Your task to perform on an android device: see creations saved in the google photos Image 0: 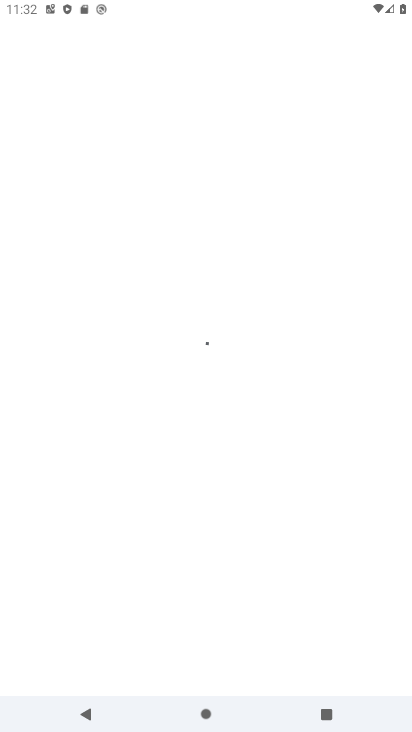
Step 0: press home button
Your task to perform on an android device: see creations saved in the google photos Image 1: 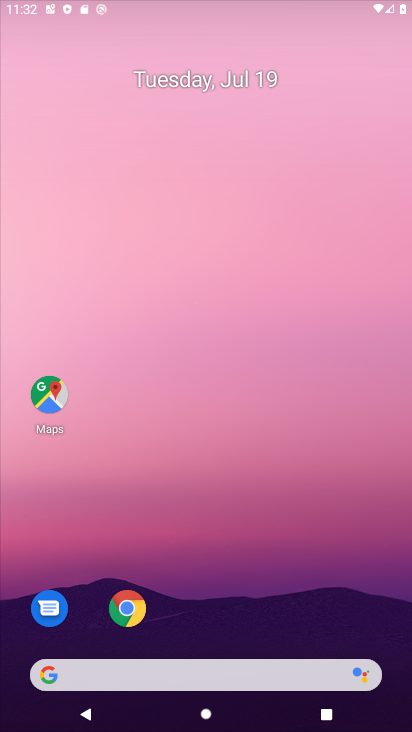
Step 1: drag from (222, 629) to (246, 61)
Your task to perform on an android device: see creations saved in the google photos Image 2: 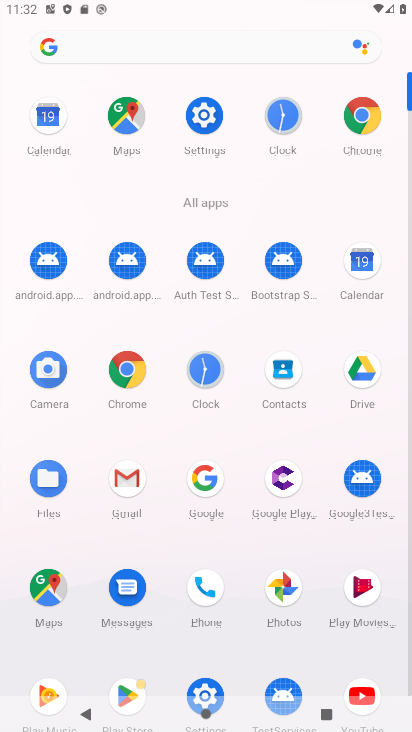
Step 2: click (281, 590)
Your task to perform on an android device: see creations saved in the google photos Image 3: 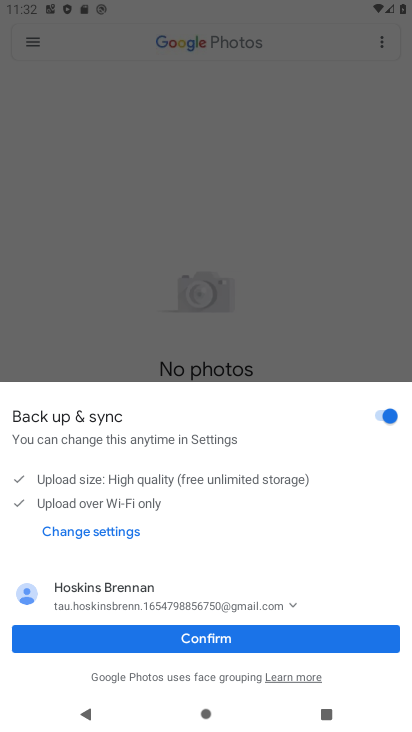
Step 3: click (189, 641)
Your task to perform on an android device: see creations saved in the google photos Image 4: 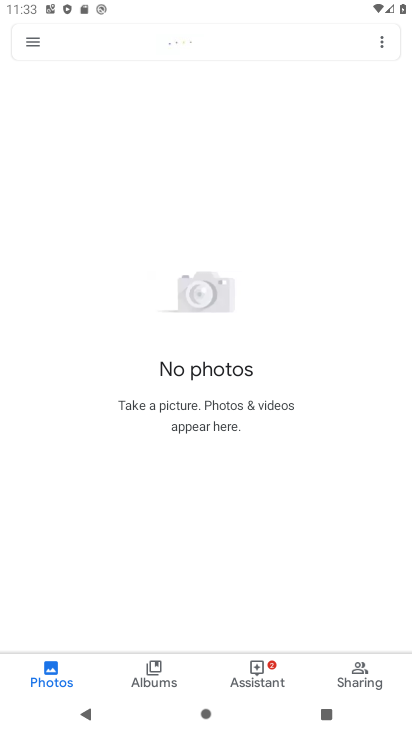
Step 4: click (32, 42)
Your task to perform on an android device: see creations saved in the google photos Image 5: 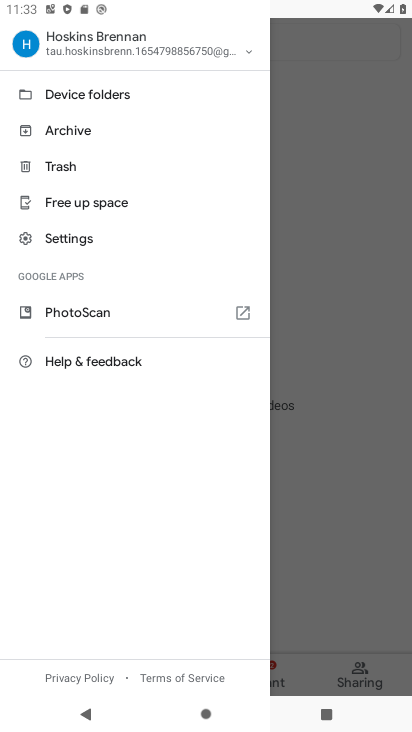
Step 5: click (318, 277)
Your task to perform on an android device: see creations saved in the google photos Image 6: 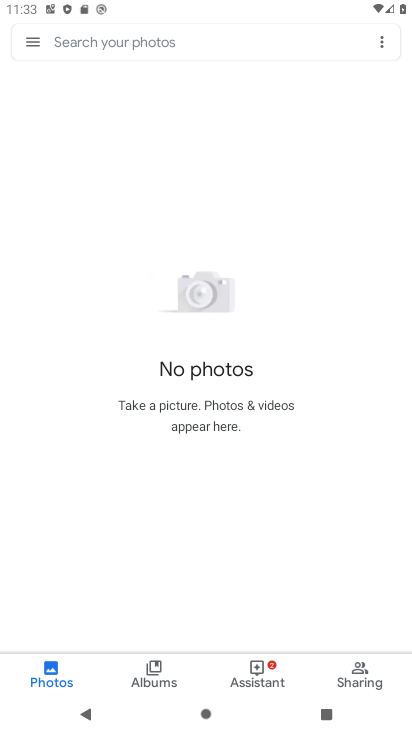
Step 6: click (181, 32)
Your task to perform on an android device: see creations saved in the google photos Image 7: 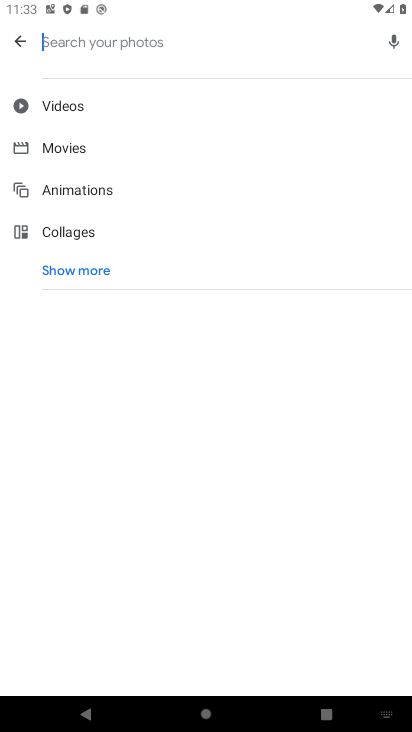
Step 7: click (92, 270)
Your task to perform on an android device: see creations saved in the google photos Image 8: 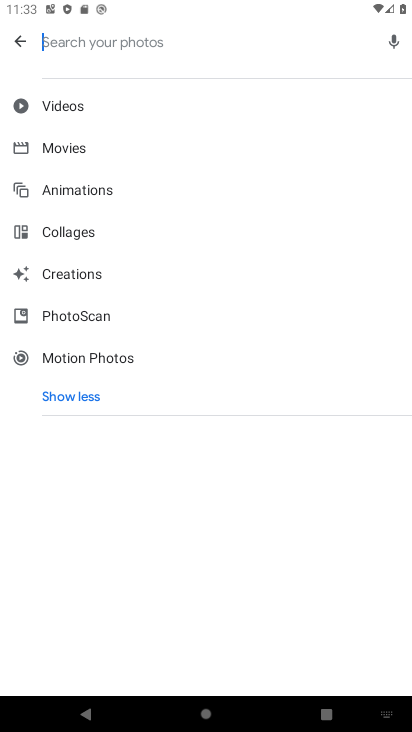
Step 8: click (61, 273)
Your task to perform on an android device: see creations saved in the google photos Image 9: 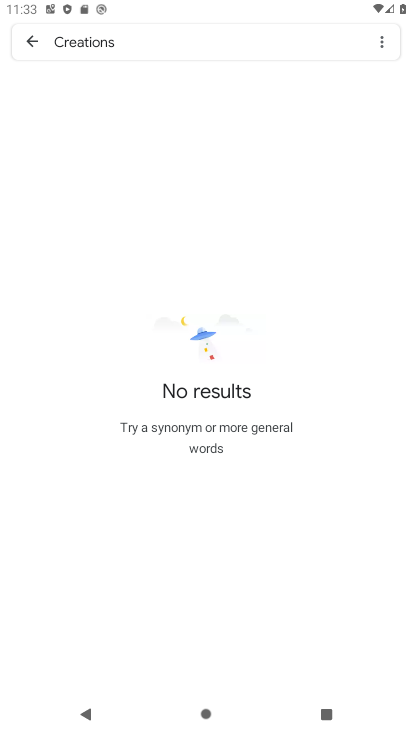
Step 9: task complete